Your task to perform on an android device: manage bookmarks in the chrome app Image 0: 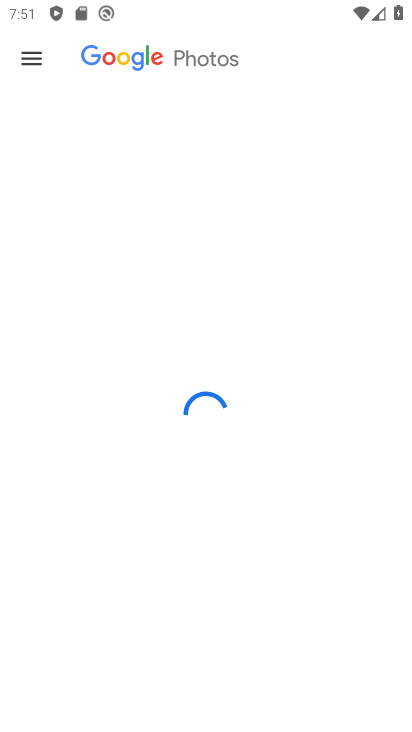
Step 0: press home button
Your task to perform on an android device: manage bookmarks in the chrome app Image 1: 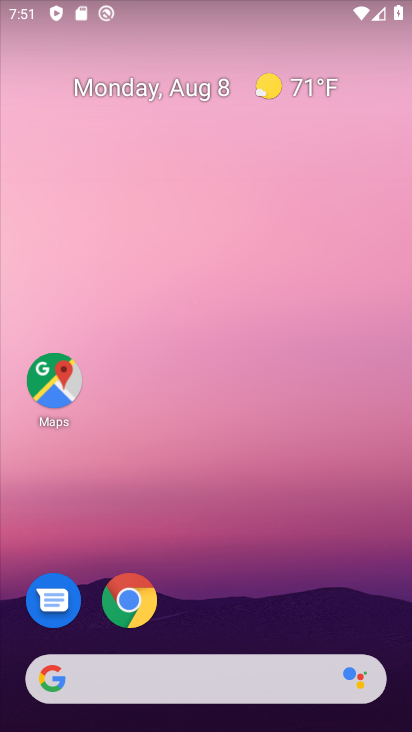
Step 1: click (138, 595)
Your task to perform on an android device: manage bookmarks in the chrome app Image 2: 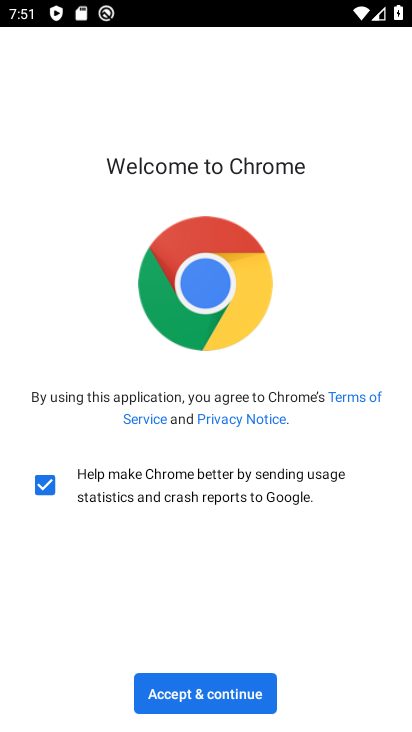
Step 2: click (223, 670)
Your task to perform on an android device: manage bookmarks in the chrome app Image 3: 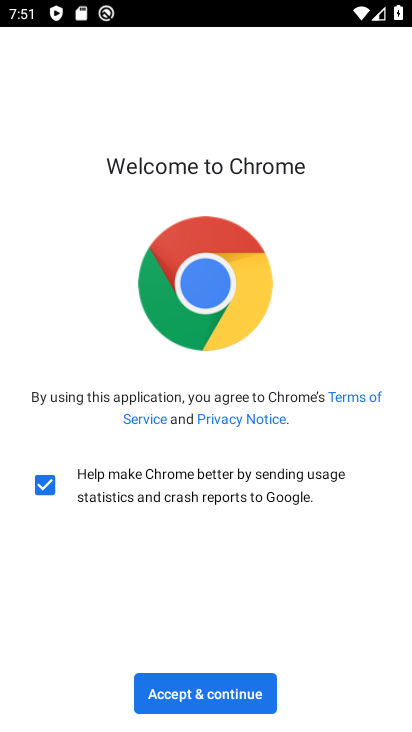
Step 3: click (222, 696)
Your task to perform on an android device: manage bookmarks in the chrome app Image 4: 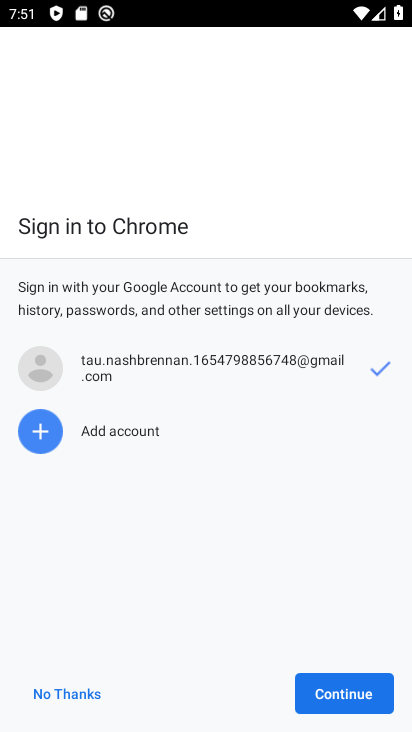
Step 4: click (380, 713)
Your task to perform on an android device: manage bookmarks in the chrome app Image 5: 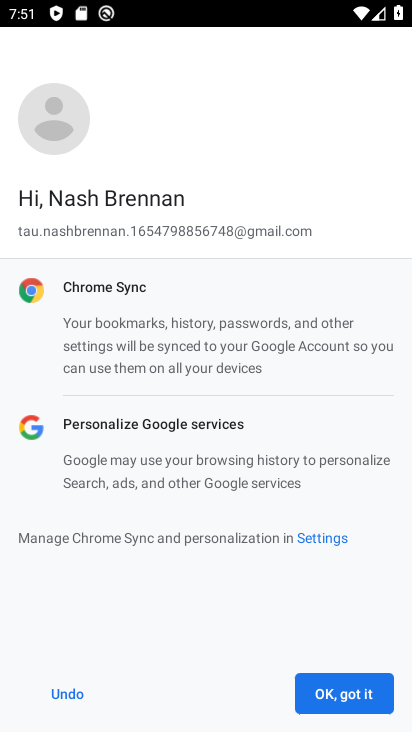
Step 5: click (363, 708)
Your task to perform on an android device: manage bookmarks in the chrome app Image 6: 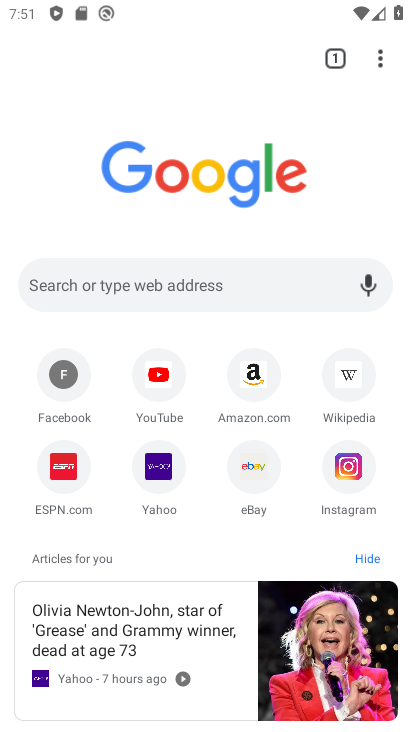
Step 6: click (385, 70)
Your task to perform on an android device: manage bookmarks in the chrome app Image 7: 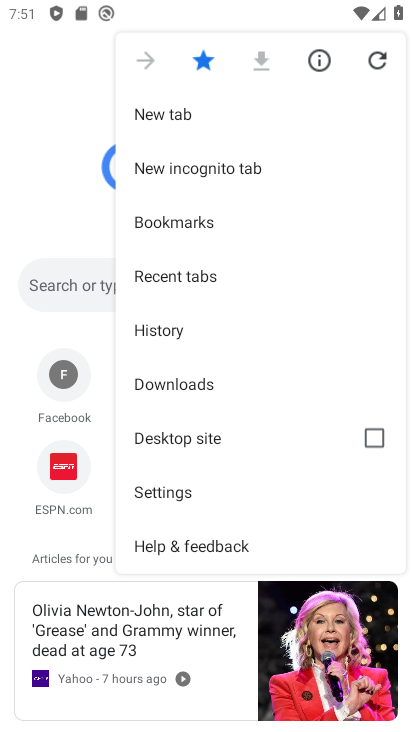
Step 7: click (179, 218)
Your task to perform on an android device: manage bookmarks in the chrome app Image 8: 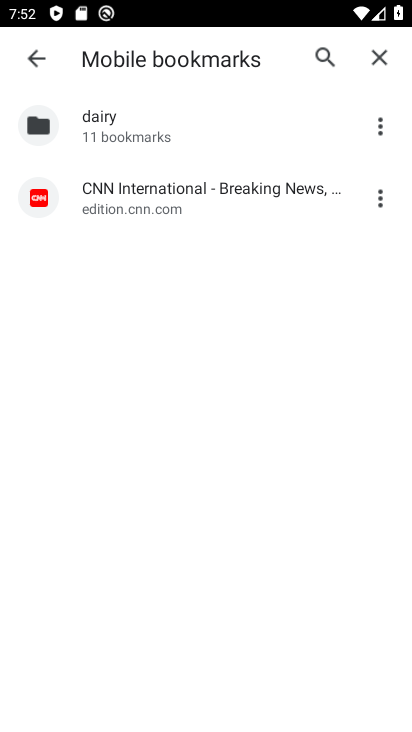
Step 8: click (372, 195)
Your task to perform on an android device: manage bookmarks in the chrome app Image 9: 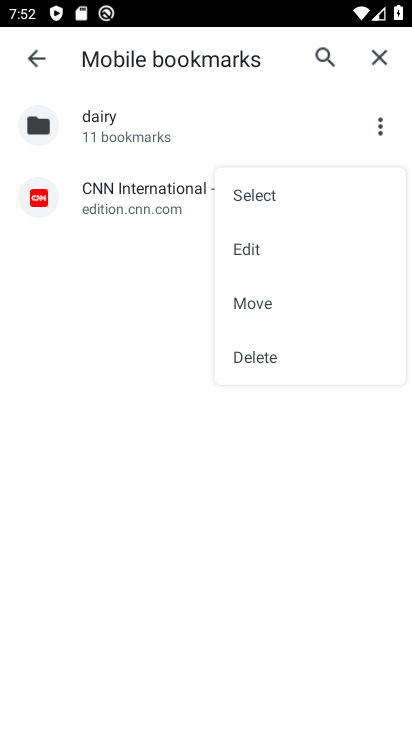
Step 9: click (244, 251)
Your task to perform on an android device: manage bookmarks in the chrome app Image 10: 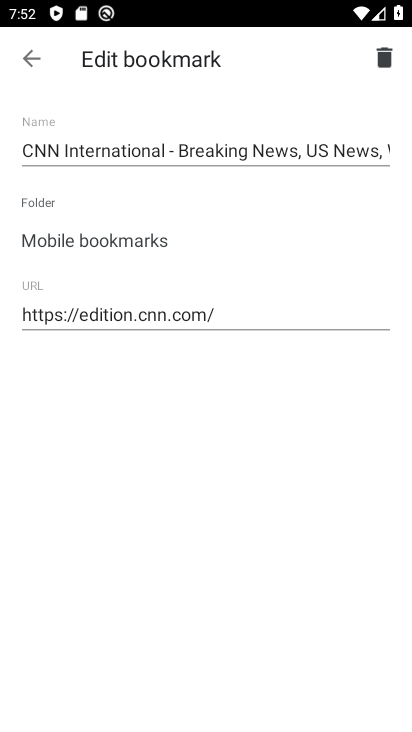
Step 10: click (382, 70)
Your task to perform on an android device: manage bookmarks in the chrome app Image 11: 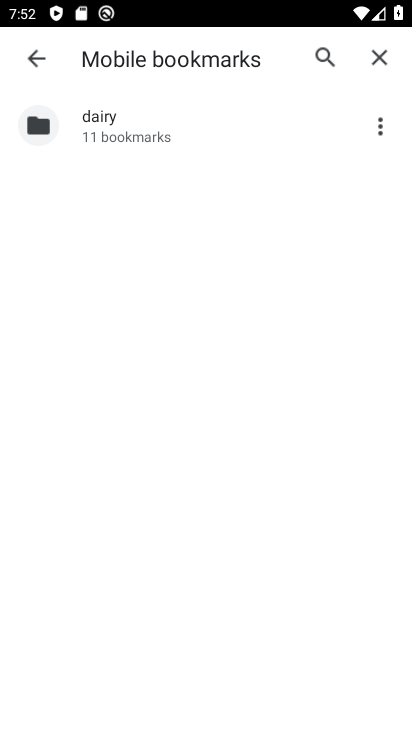
Step 11: task complete